Your task to perform on an android device: What's the weather going to be this weekend? Image 0: 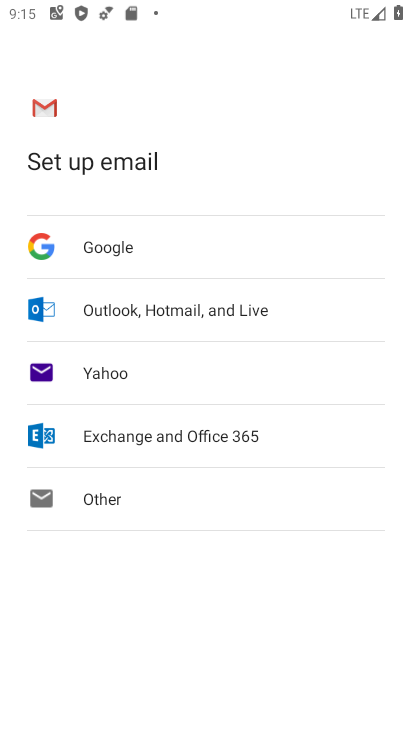
Step 0: press home button
Your task to perform on an android device: What's the weather going to be this weekend? Image 1: 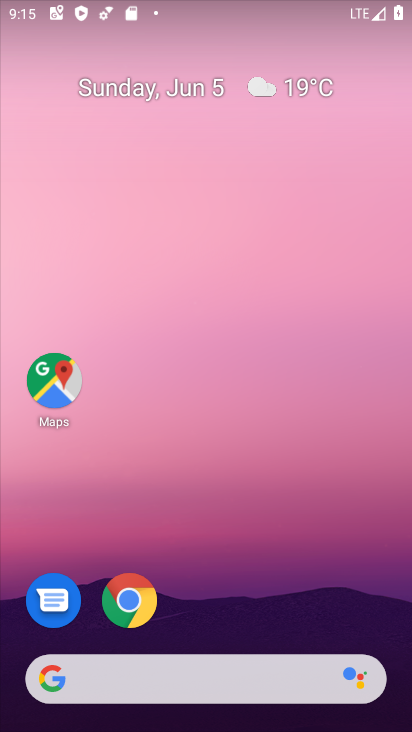
Step 1: drag from (234, 635) to (288, 260)
Your task to perform on an android device: What's the weather going to be this weekend? Image 2: 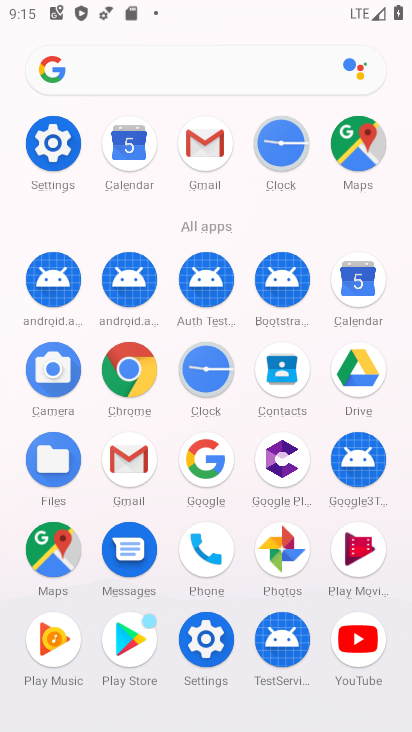
Step 2: click (364, 293)
Your task to perform on an android device: What's the weather going to be this weekend? Image 3: 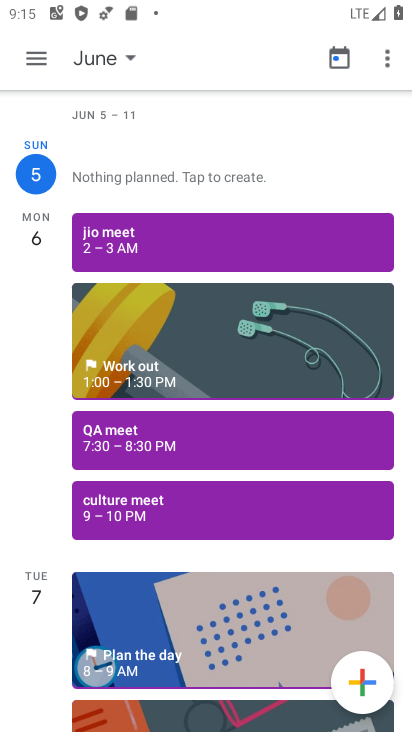
Step 3: click (34, 70)
Your task to perform on an android device: What's the weather going to be this weekend? Image 4: 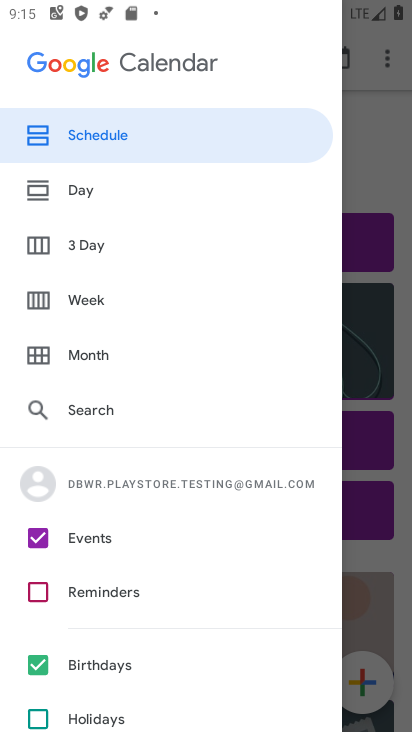
Step 4: press home button
Your task to perform on an android device: What's the weather going to be this weekend? Image 5: 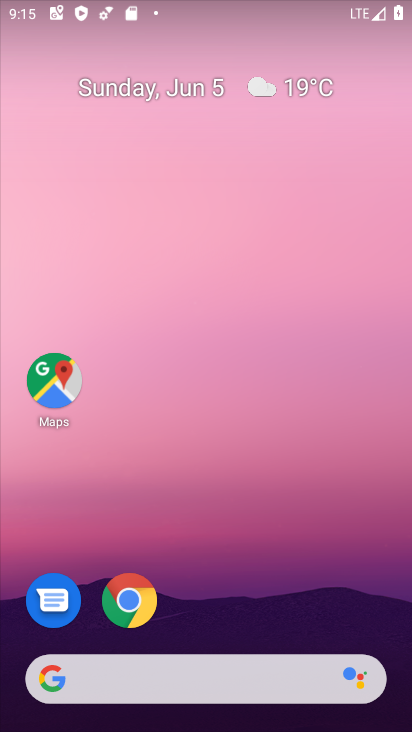
Step 5: click (271, 690)
Your task to perform on an android device: What's the weather going to be this weekend? Image 6: 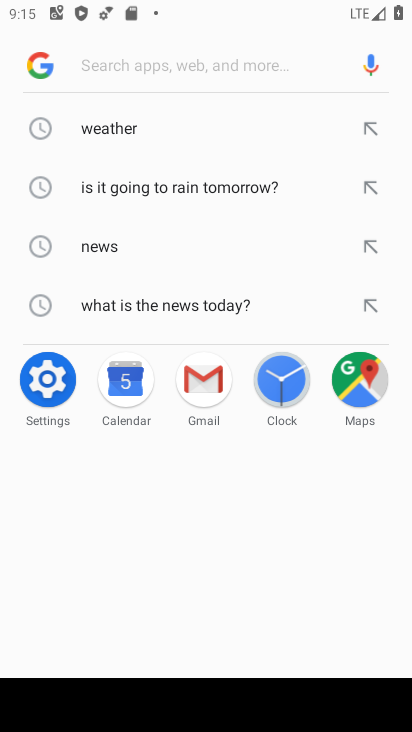
Step 6: drag from (177, 674) to (365, 728)
Your task to perform on an android device: What's the weather going to be this weekend? Image 7: 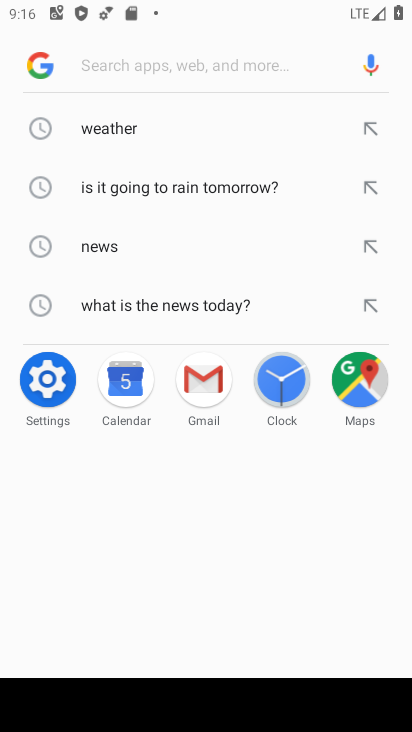
Step 7: type "What's the weather going to be this weekend?"
Your task to perform on an android device: What's the weather going to be this weekend? Image 8: 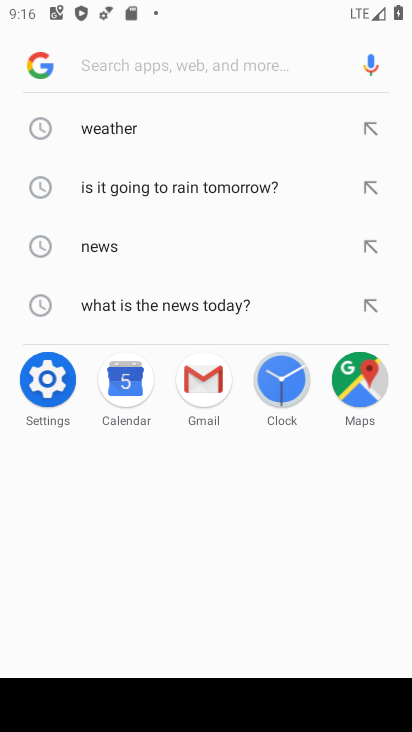
Step 8: drag from (365, 728) to (402, 290)
Your task to perform on an android device: What's the weather going to be this weekend? Image 9: 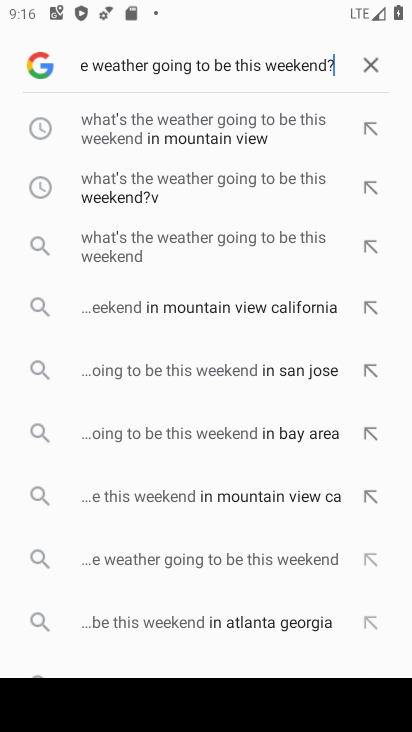
Step 9: press enter
Your task to perform on an android device: What's the weather going to be this weekend? Image 10: 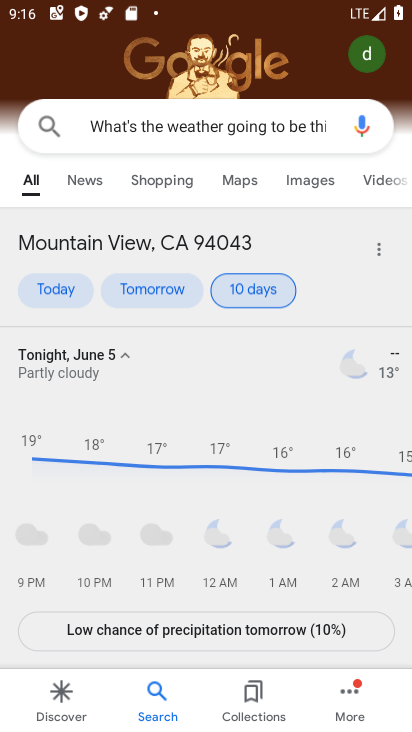
Step 10: task complete